Your task to perform on an android device: clear history in the chrome app Image 0: 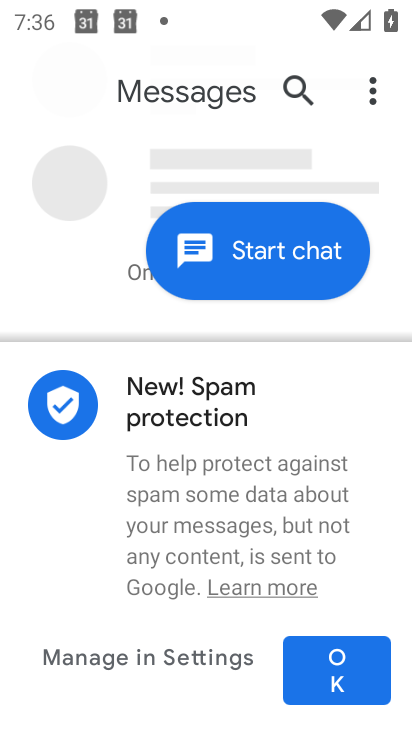
Step 0: press home button
Your task to perform on an android device: clear history in the chrome app Image 1: 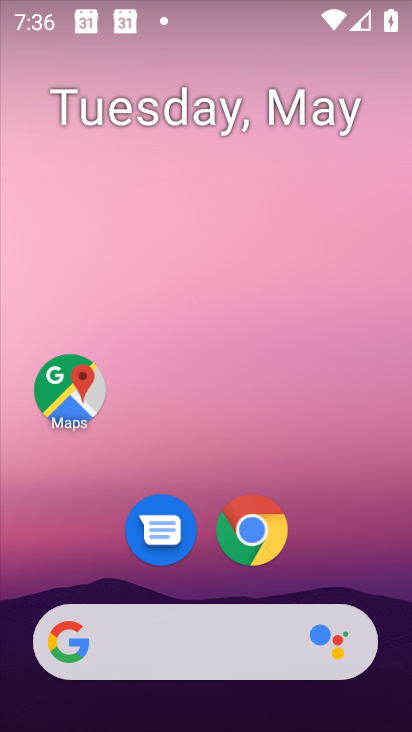
Step 1: click (269, 532)
Your task to perform on an android device: clear history in the chrome app Image 2: 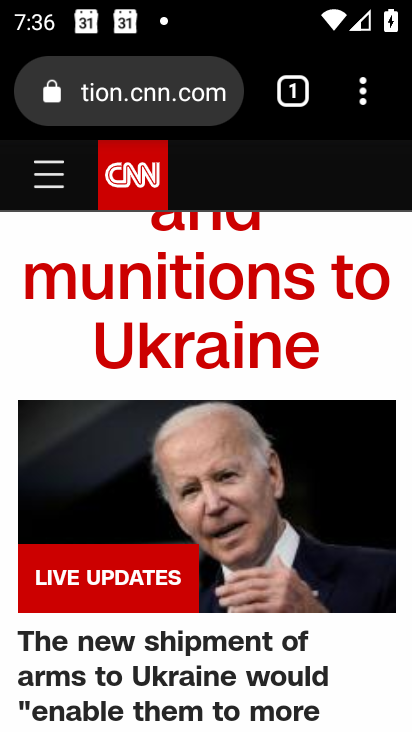
Step 2: click (357, 92)
Your task to perform on an android device: clear history in the chrome app Image 3: 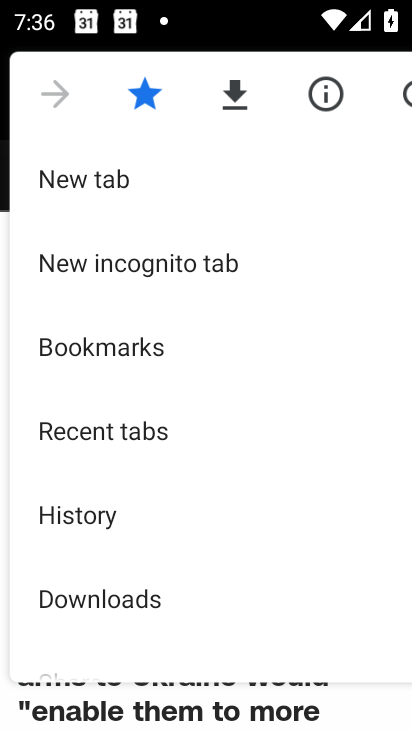
Step 3: click (70, 521)
Your task to perform on an android device: clear history in the chrome app Image 4: 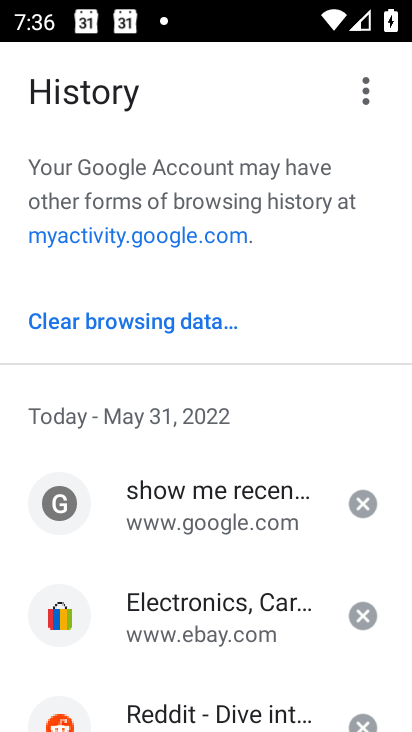
Step 4: click (140, 316)
Your task to perform on an android device: clear history in the chrome app Image 5: 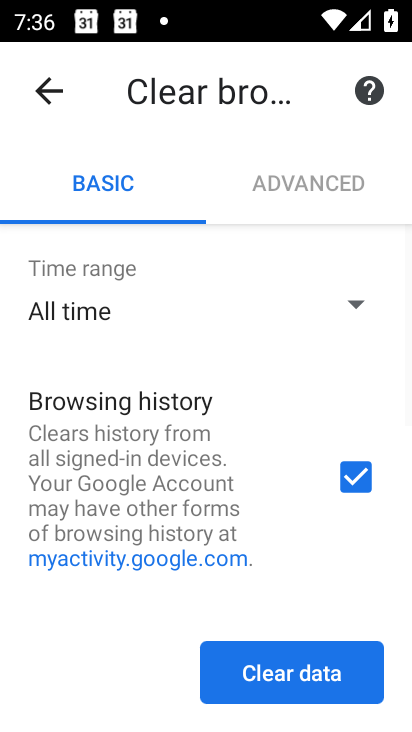
Step 5: drag from (264, 531) to (261, 334)
Your task to perform on an android device: clear history in the chrome app Image 6: 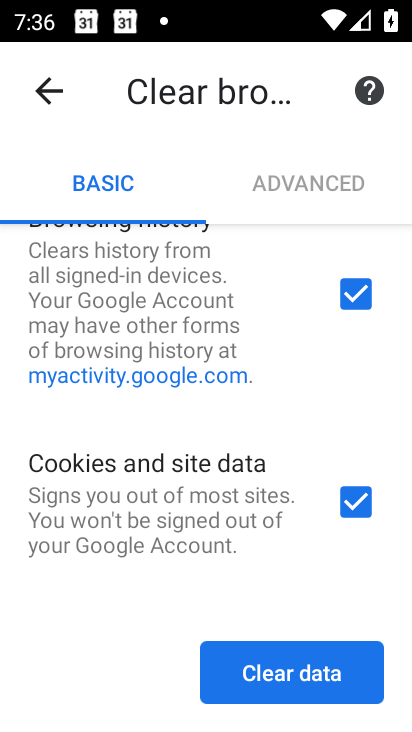
Step 6: click (341, 498)
Your task to perform on an android device: clear history in the chrome app Image 7: 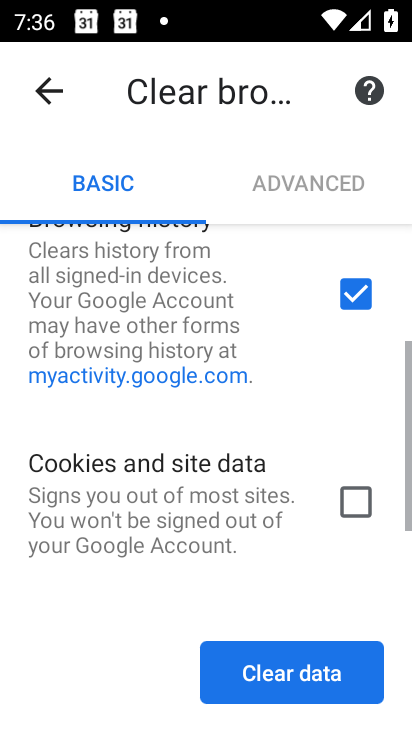
Step 7: drag from (265, 537) to (291, 172)
Your task to perform on an android device: clear history in the chrome app Image 8: 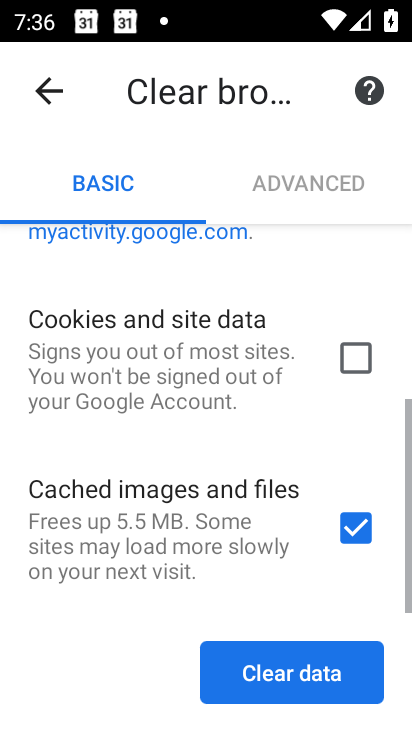
Step 8: click (357, 527)
Your task to perform on an android device: clear history in the chrome app Image 9: 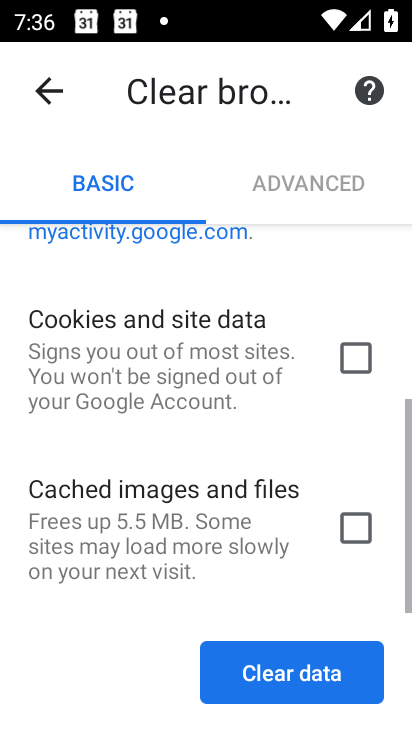
Step 9: click (299, 676)
Your task to perform on an android device: clear history in the chrome app Image 10: 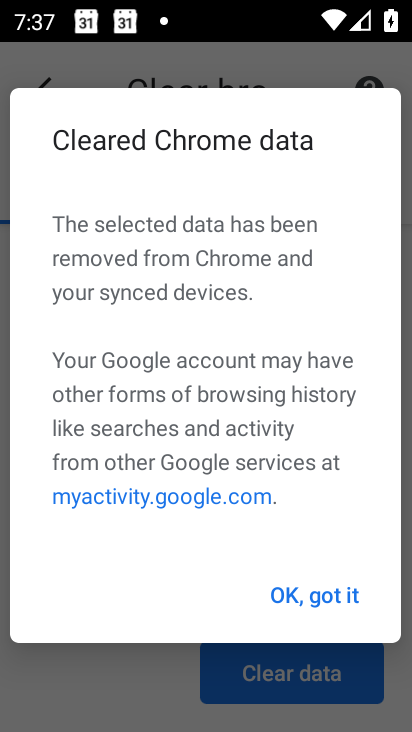
Step 10: click (355, 590)
Your task to perform on an android device: clear history in the chrome app Image 11: 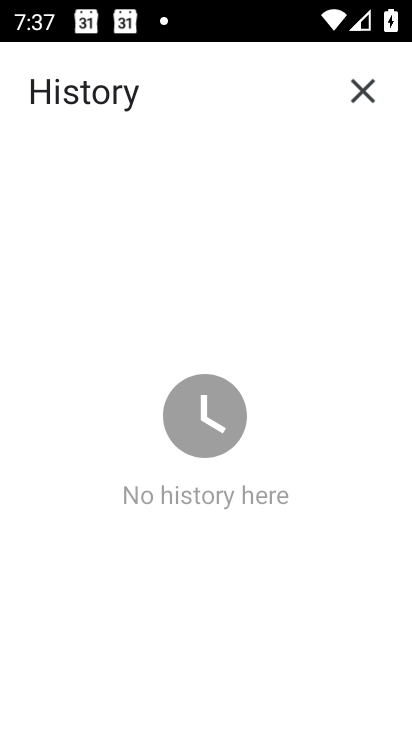
Step 11: task complete